Your task to perform on an android device: See recent photos Image 0: 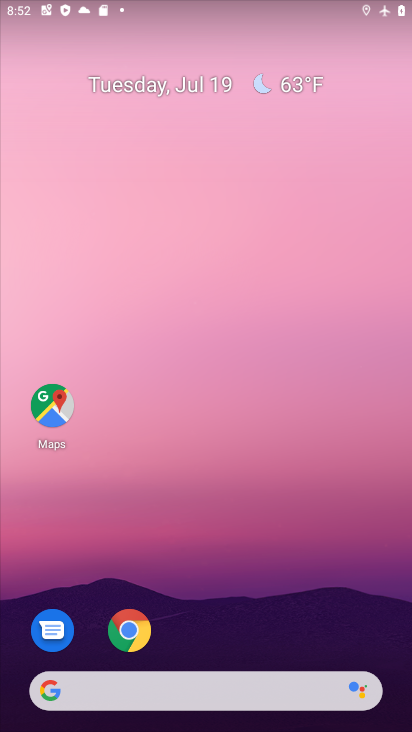
Step 0: drag from (192, 694) to (200, 184)
Your task to perform on an android device: See recent photos Image 1: 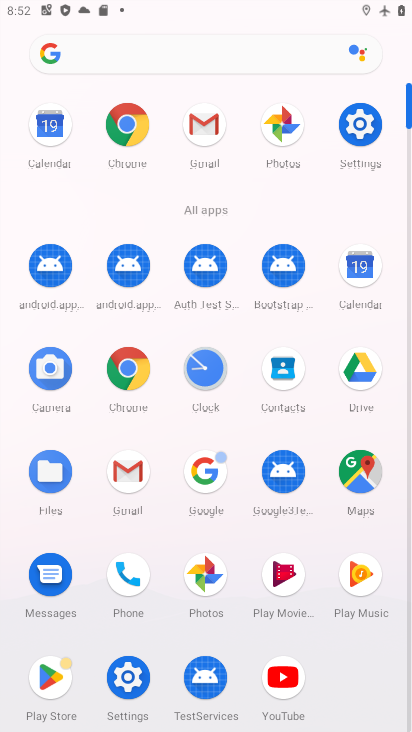
Step 1: click (284, 123)
Your task to perform on an android device: See recent photos Image 2: 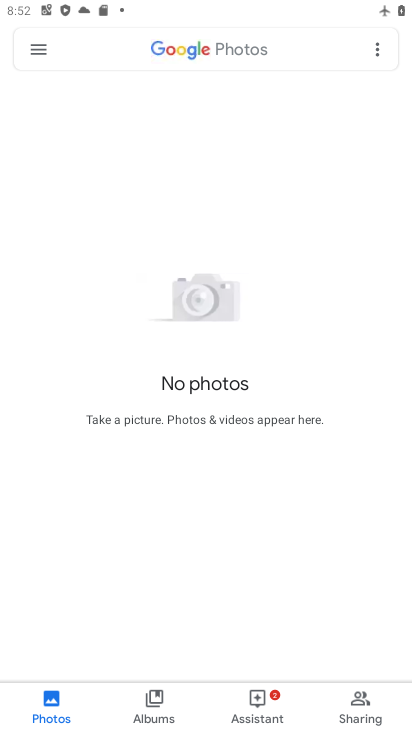
Step 2: click (154, 705)
Your task to perform on an android device: See recent photos Image 3: 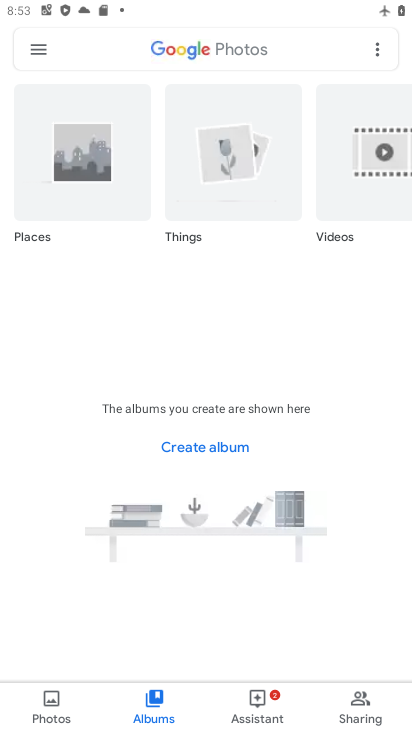
Step 3: click (254, 700)
Your task to perform on an android device: See recent photos Image 4: 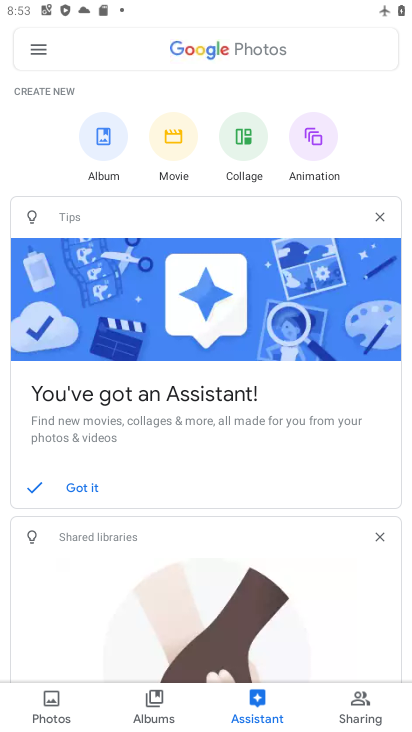
Step 4: click (362, 702)
Your task to perform on an android device: See recent photos Image 5: 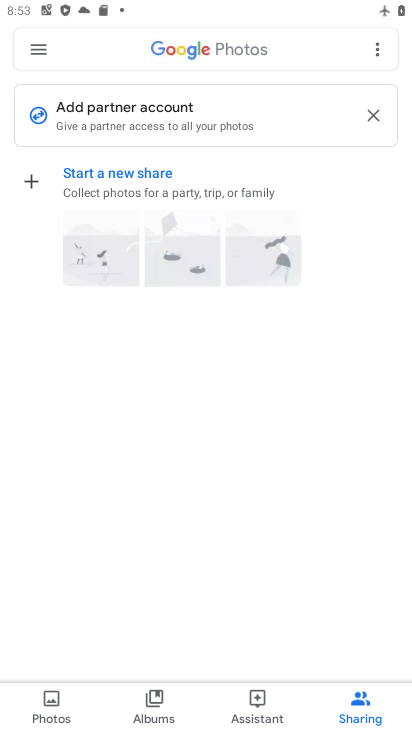
Step 5: task complete